Your task to perform on an android device: Check the news Image 0: 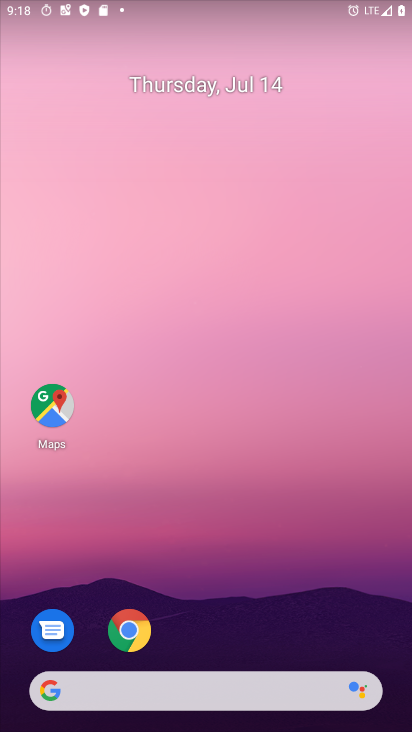
Step 0: drag from (8, 284) to (274, 287)
Your task to perform on an android device: Check the news Image 1: 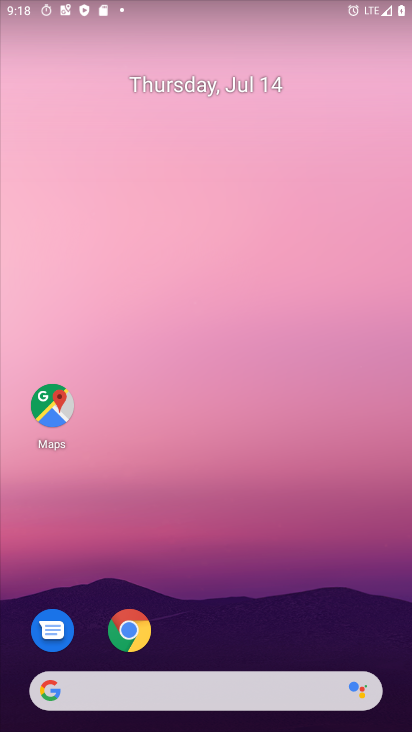
Step 1: task complete